Your task to perform on an android device: Go to calendar. Show me events next week Image 0: 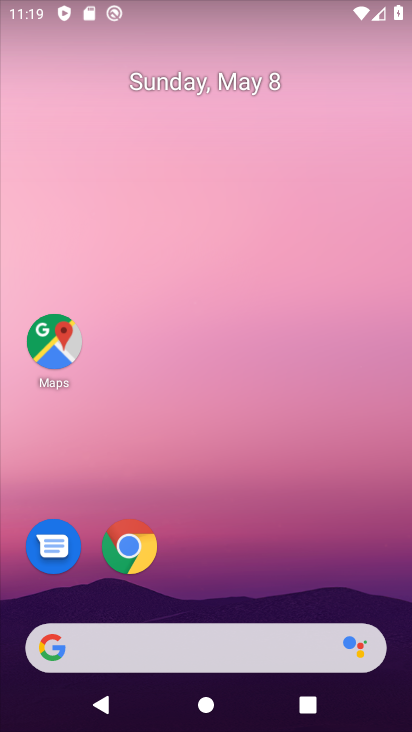
Step 0: click (62, 356)
Your task to perform on an android device: Go to calendar. Show me events next week Image 1: 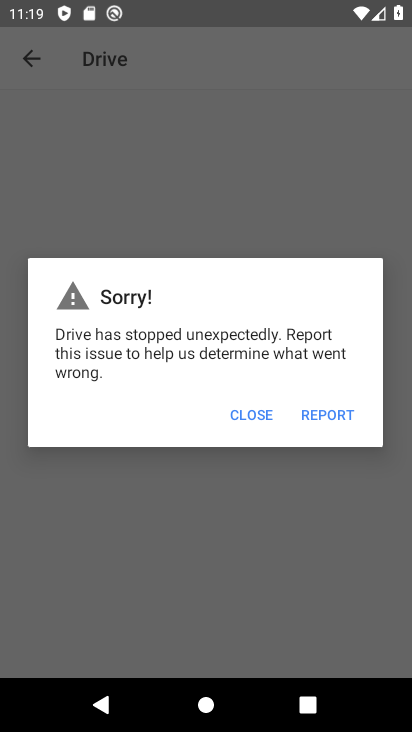
Step 1: click (110, 443)
Your task to perform on an android device: Go to calendar. Show me events next week Image 2: 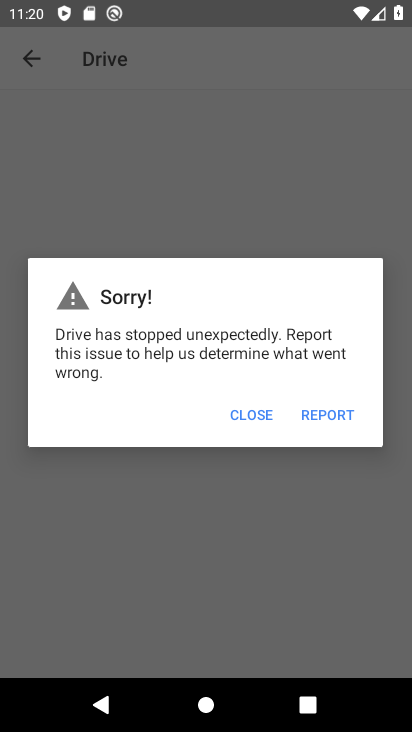
Step 2: press home button
Your task to perform on an android device: Go to calendar. Show me events next week Image 3: 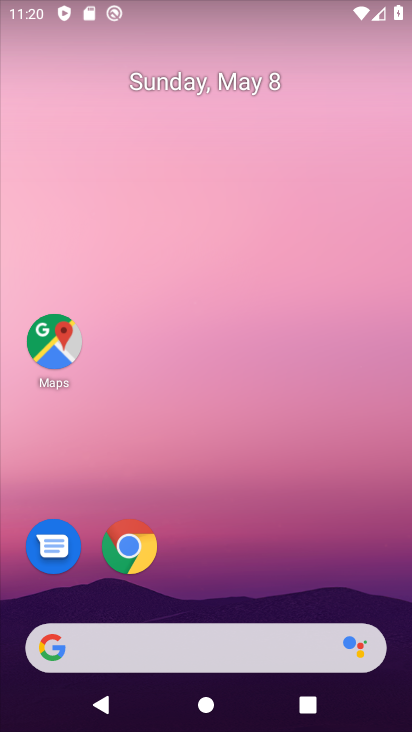
Step 3: drag from (212, 559) to (225, 137)
Your task to perform on an android device: Go to calendar. Show me events next week Image 4: 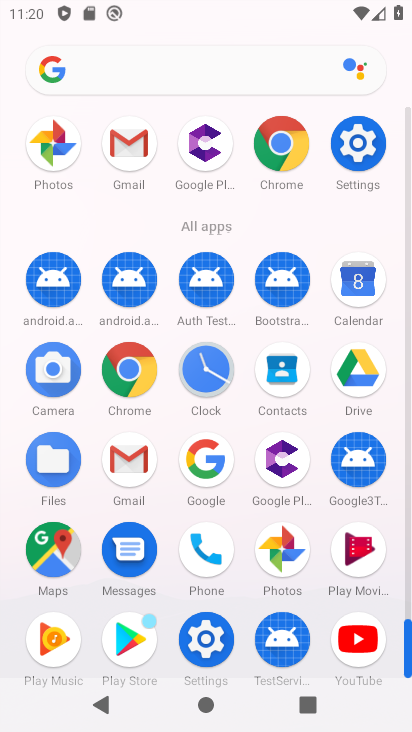
Step 4: click (365, 284)
Your task to perform on an android device: Go to calendar. Show me events next week Image 5: 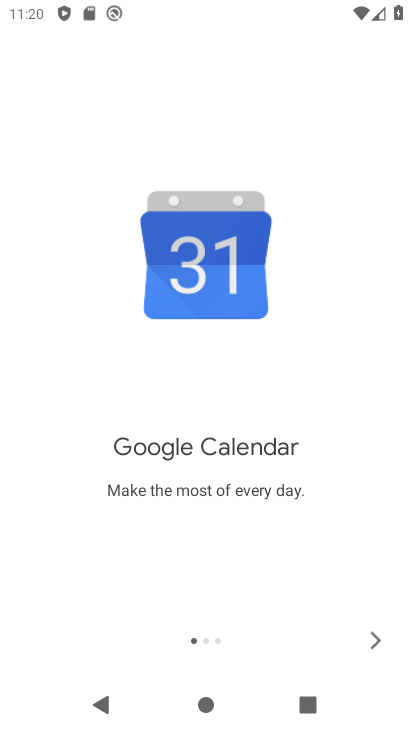
Step 5: click (376, 638)
Your task to perform on an android device: Go to calendar. Show me events next week Image 6: 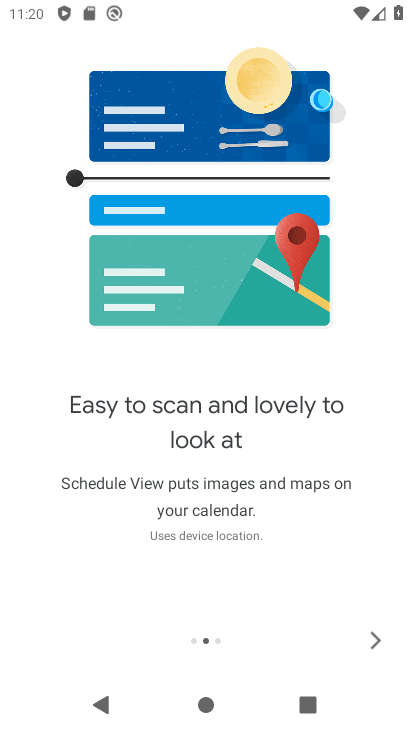
Step 6: click (385, 637)
Your task to perform on an android device: Go to calendar. Show me events next week Image 7: 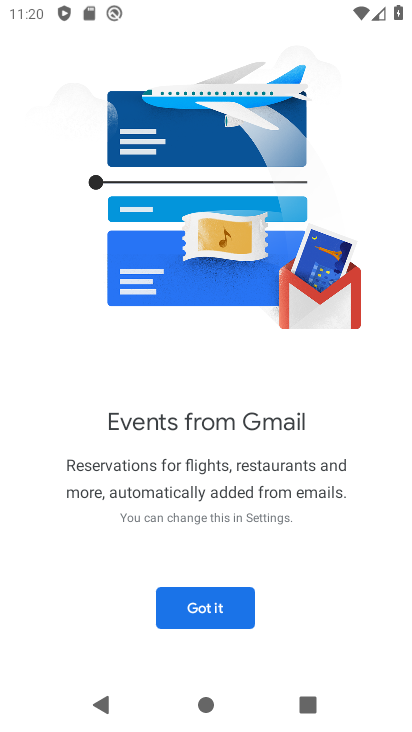
Step 7: click (225, 612)
Your task to perform on an android device: Go to calendar. Show me events next week Image 8: 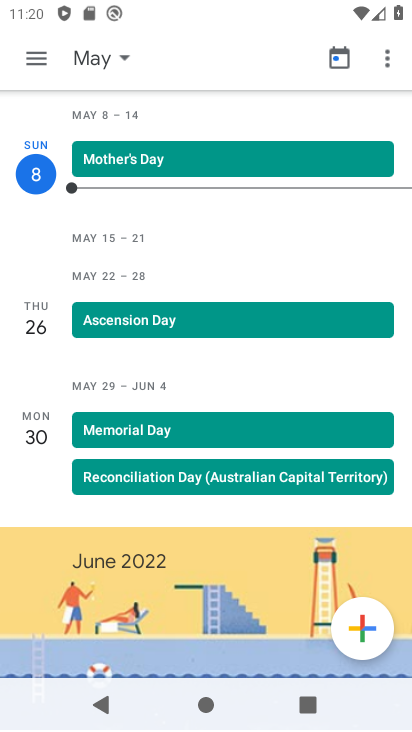
Step 8: click (86, 54)
Your task to perform on an android device: Go to calendar. Show me events next week Image 9: 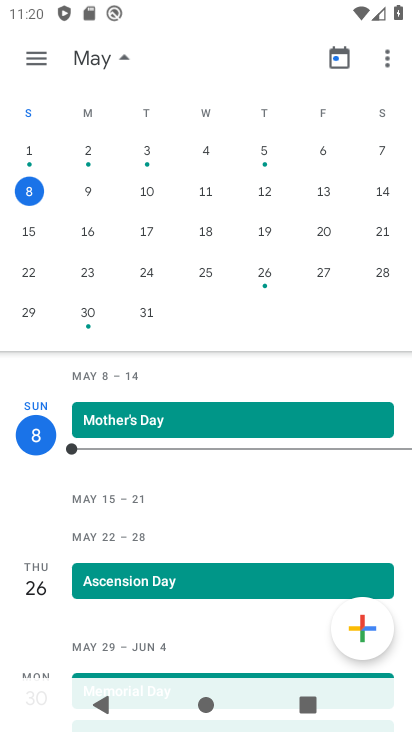
Step 9: click (16, 225)
Your task to perform on an android device: Go to calendar. Show me events next week Image 10: 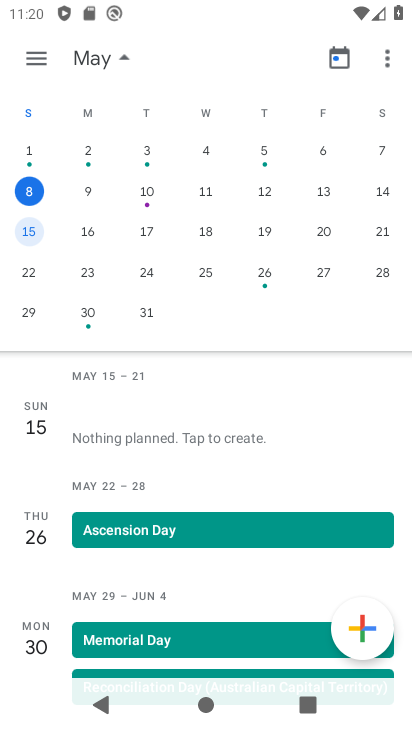
Step 10: click (92, 230)
Your task to perform on an android device: Go to calendar. Show me events next week Image 11: 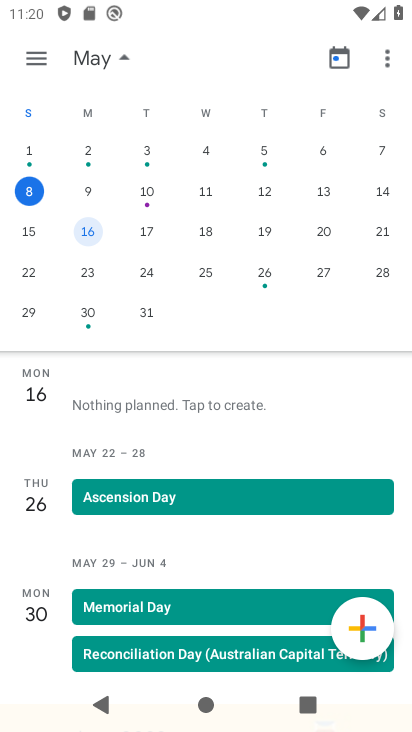
Step 11: click (148, 238)
Your task to perform on an android device: Go to calendar. Show me events next week Image 12: 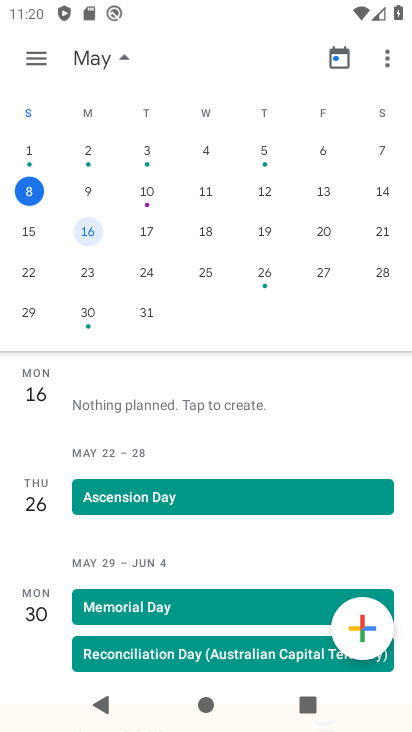
Step 12: click (206, 240)
Your task to perform on an android device: Go to calendar. Show me events next week Image 13: 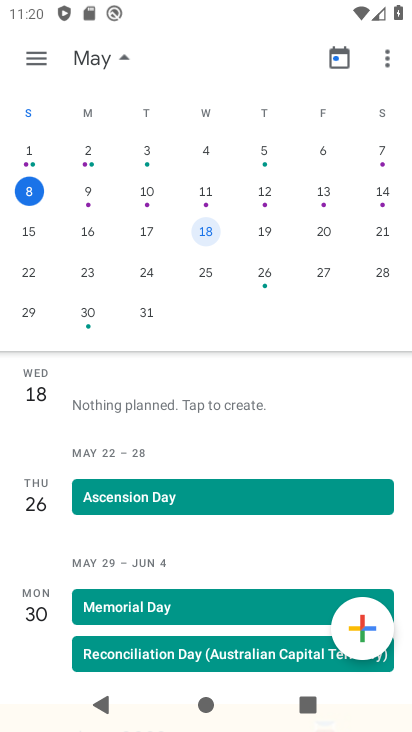
Step 13: click (272, 238)
Your task to perform on an android device: Go to calendar. Show me events next week Image 14: 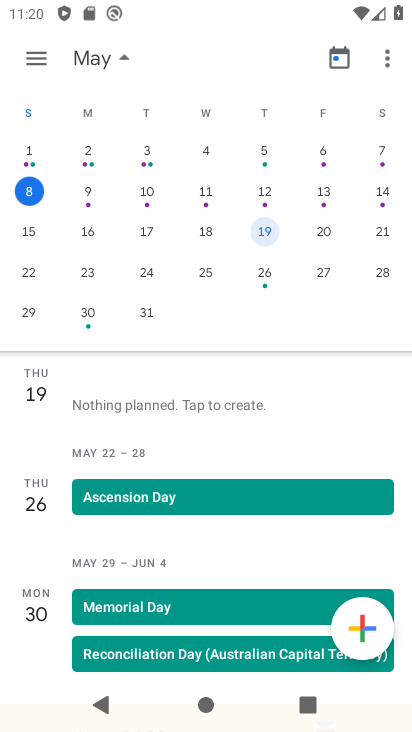
Step 14: click (318, 238)
Your task to perform on an android device: Go to calendar. Show me events next week Image 15: 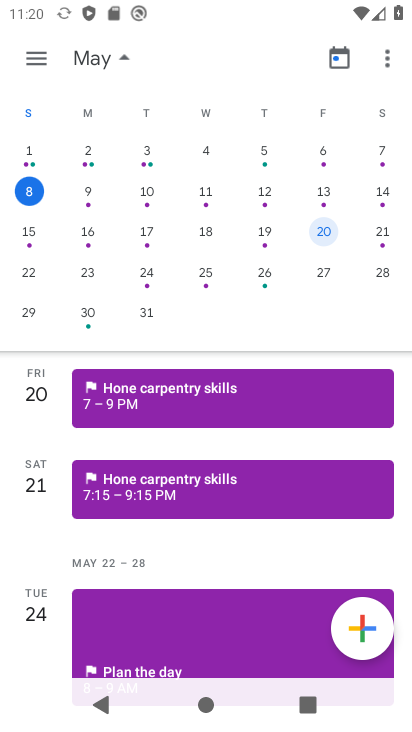
Step 15: click (370, 233)
Your task to perform on an android device: Go to calendar. Show me events next week Image 16: 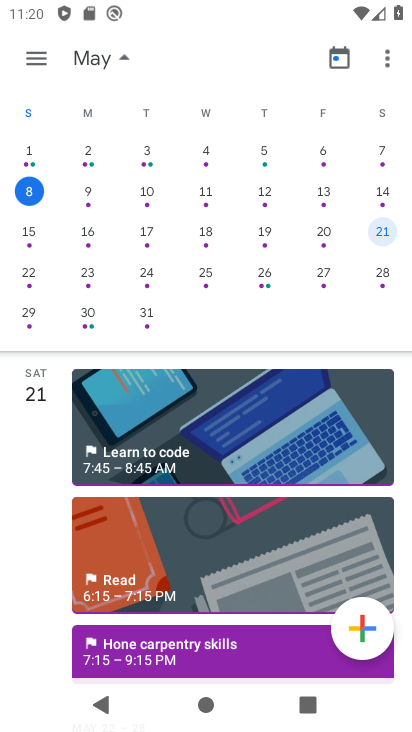
Step 16: task complete